Your task to perform on an android device: Search for pizza restaurants on Maps Image 0: 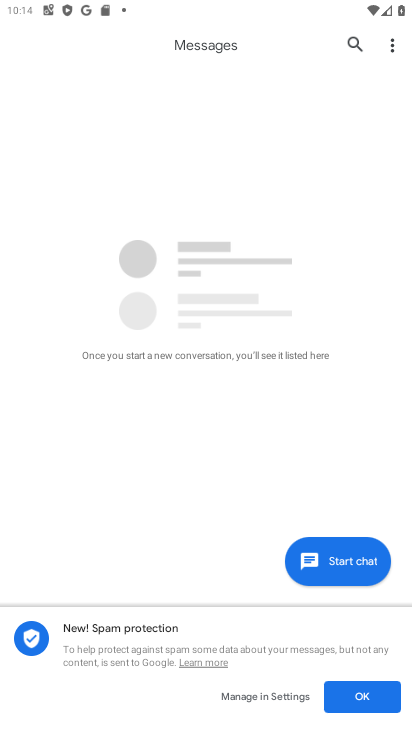
Step 0: press home button
Your task to perform on an android device: Search for pizza restaurants on Maps Image 1: 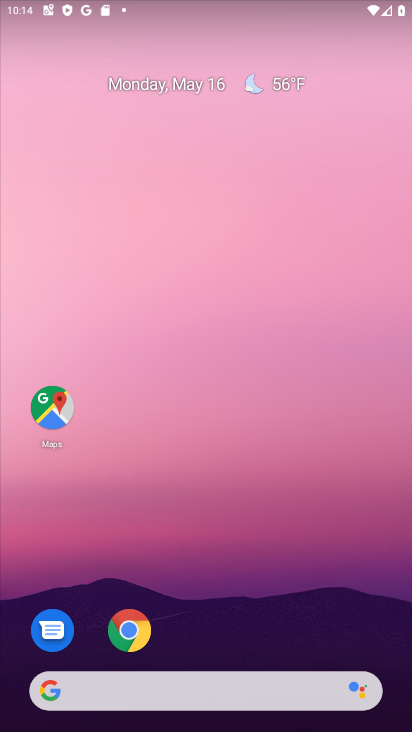
Step 1: click (47, 395)
Your task to perform on an android device: Search for pizza restaurants on Maps Image 2: 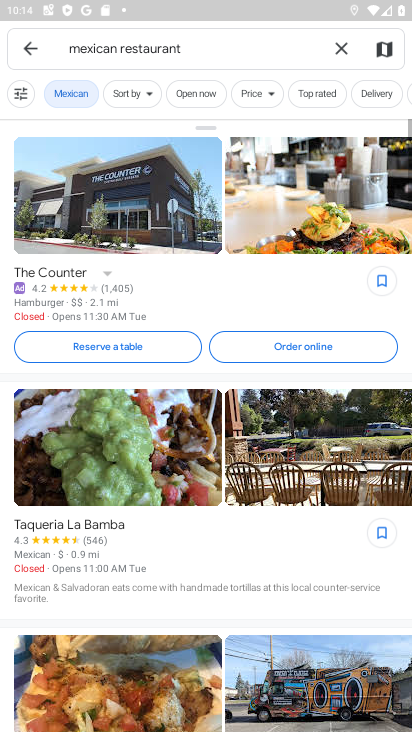
Step 2: click (336, 50)
Your task to perform on an android device: Search for pizza restaurants on Maps Image 3: 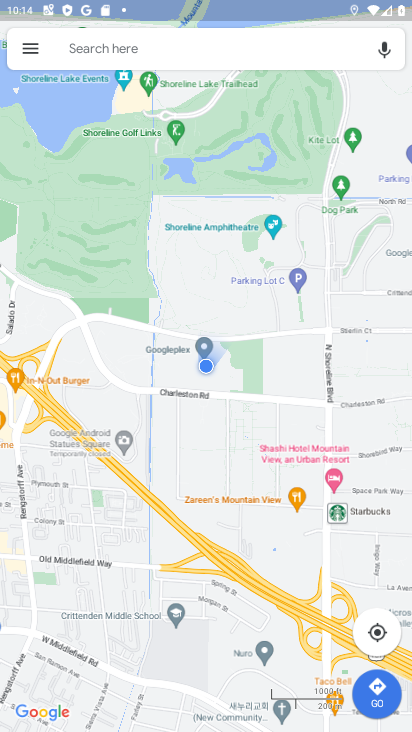
Step 3: click (207, 51)
Your task to perform on an android device: Search for pizza restaurants on Maps Image 4: 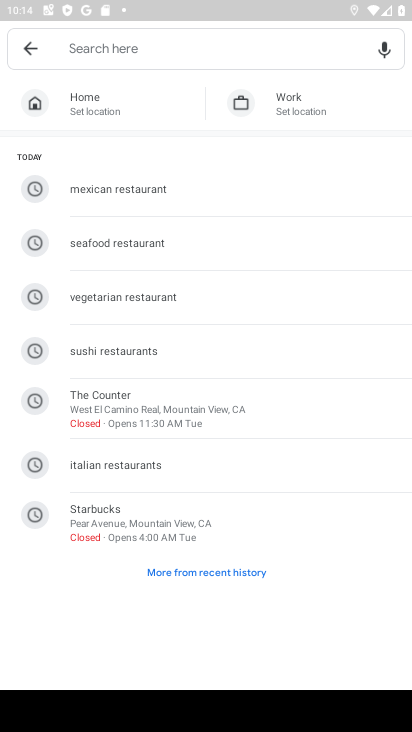
Step 4: type "Pizza restaurants"
Your task to perform on an android device: Search for pizza restaurants on Maps Image 5: 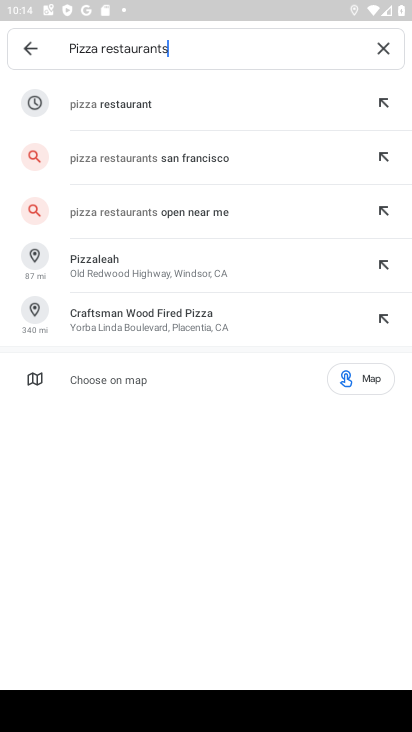
Step 5: click (133, 107)
Your task to perform on an android device: Search for pizza restaurants on Maps Image 6: 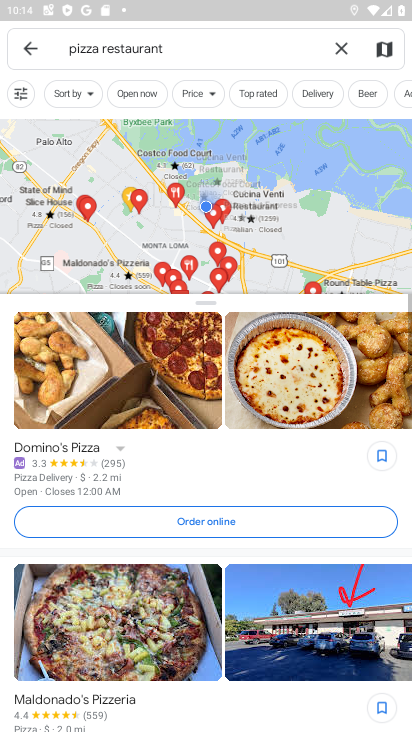
Step 6: task complete